Your task to perform on an android device: install app "Airtel Thanks" Image 0: 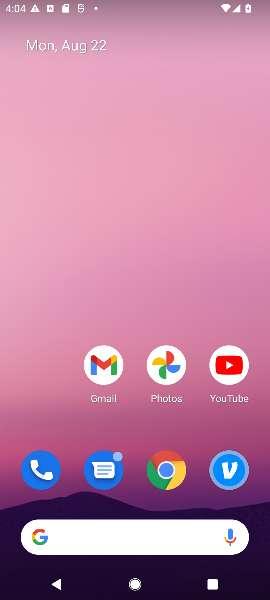
Step 0: drag from (117, 494) to (115, 121)
Your task to perform on an android device: install app "Airtel Thanks" Image 1: 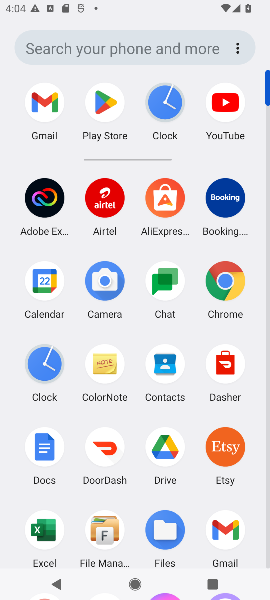
Step 1: click (99, 97)
Your task to perform on an android device: install app "Airtel Thanks" Image 2: 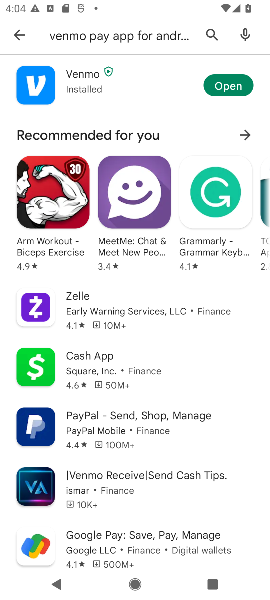
Step 2: click (22, 32)
Your task to perform on an android device: install app "Airtel Thanks" Image 3: 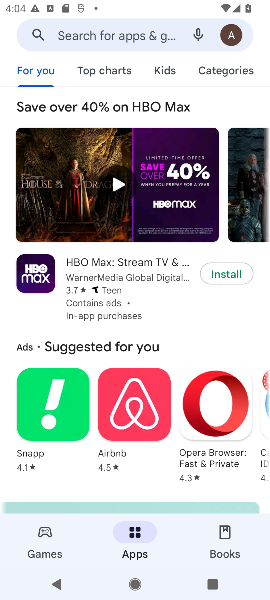
Step 3: click (94, 26)
Your task to perform on an android device: install app "Airtel Thanks" Image 4: 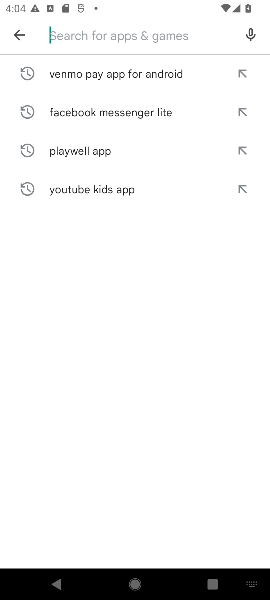
Step 4: type "Airtel Thanks "
Your task to perform on an android device: install app "Airtel Thanks" Image 5: 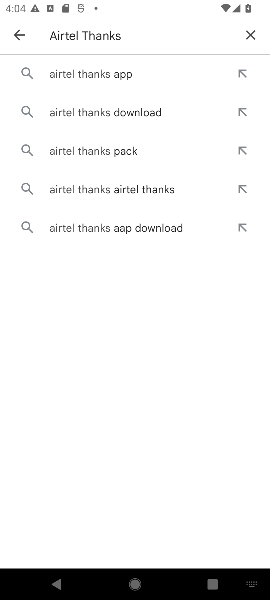
Step 5: click (113, 69)
Your task to perform on an android device: install app "Airtel Thanks" Image 6: 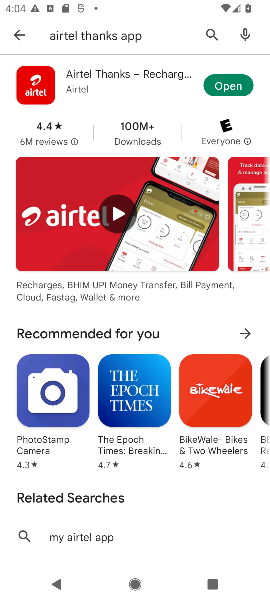
Step 6: click (218, 83)
Your task to perform on an android device: install app "Airtel Thanks" Image 7: 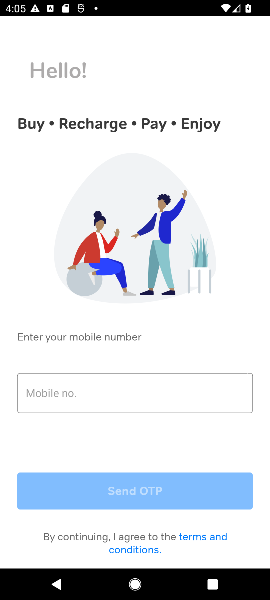
Step 7: task complete